Your task to perform on an android device: change your default location settings in chrome Image 0: 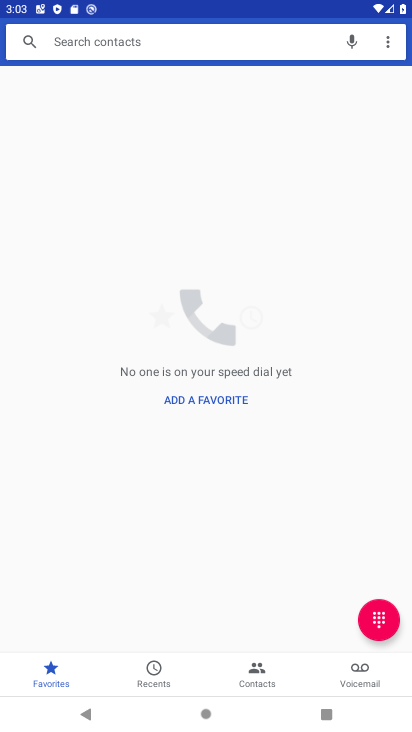
Step 0: press home button
Your task to perform on an android device: change your default location settings in chrome Image 1: 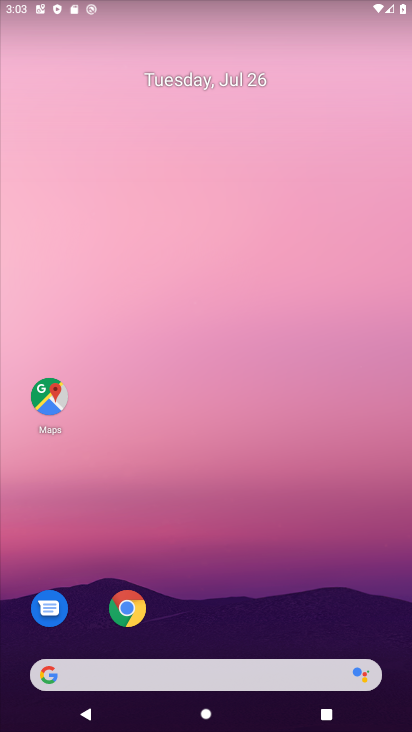
Step 1: drag from (280, 495) to (287, 178)
Your task to perform on an android device: change your default location settings in chrome Image 2: 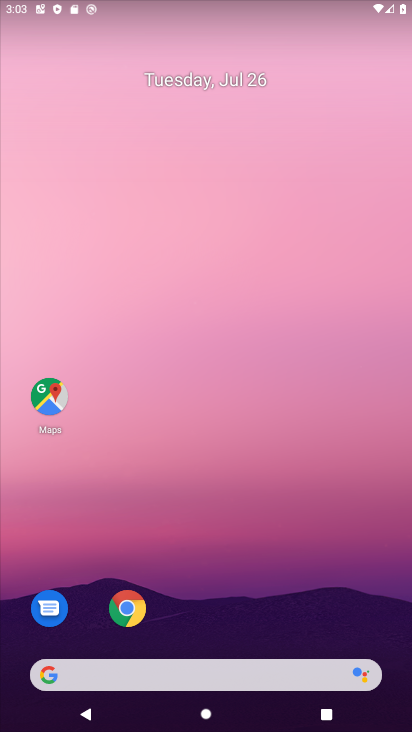
Step 2: drag from (301, 501) to (293, 2)
Your task to perform on an android device: change your default location settings in chrome Image 3: 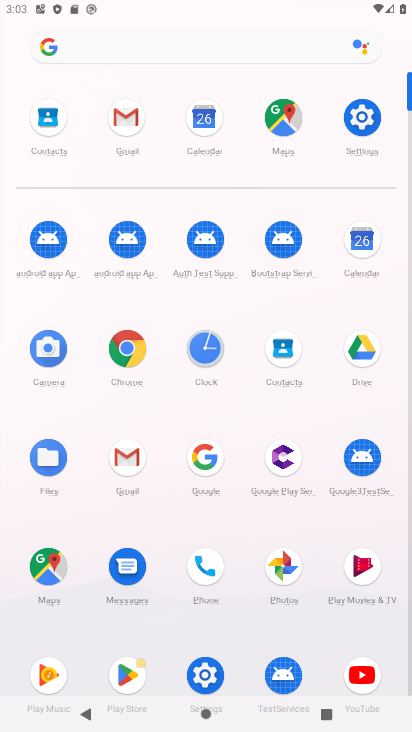
Step 3: click (135, 347)
Your task to perform on an android device: change your default location settings in chrome Image 4: 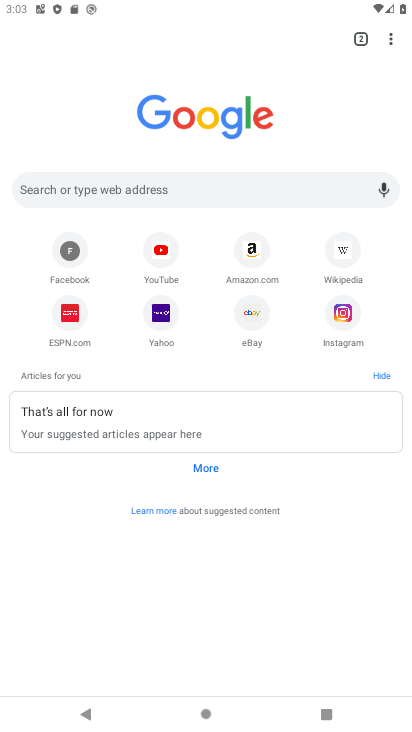
Step 4: click (396, 46)
Your task to perform on an android device: change your default location settings in chrome Image 5: 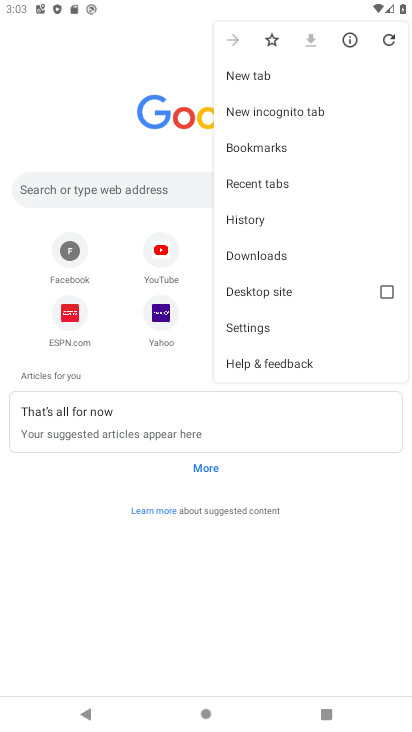
Step 5: click (270, 333)
Your task to perform on an android device: change your default location settings in chrome Image 6: 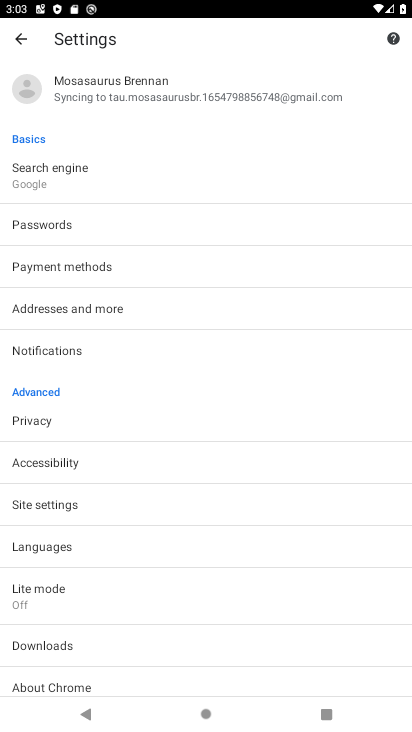
Step 6: task complete